Your task to perform on an android device: turn pop-ups off in chrome Image 0: 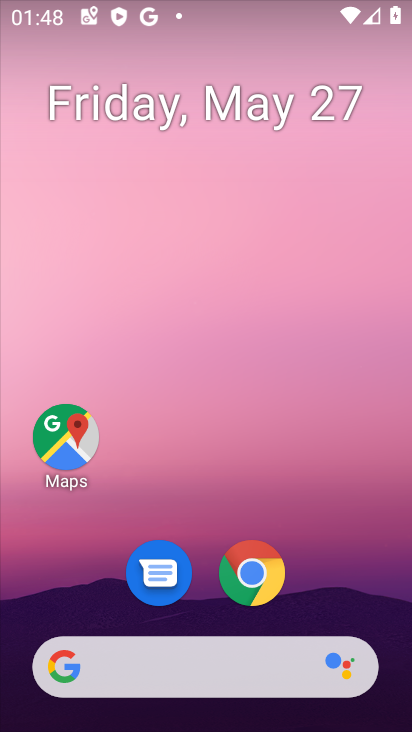
Step 0: click (264, 563)
Your task to perform on an android device: turn pop-ups off in chrome Image 1: 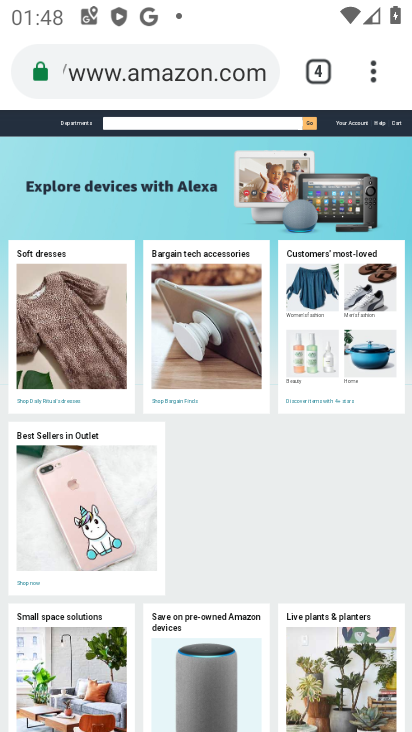
Step 1: click (370, 72)
Your task to perform on an android device: turn pop-ups off in chrome Image 2: 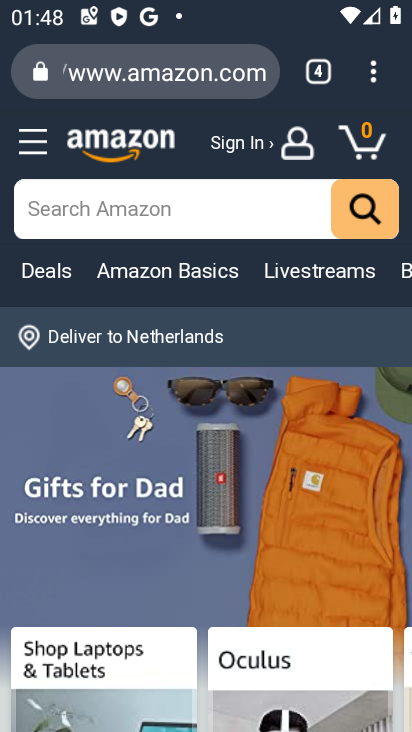
Step 2: click (373, 56)
Your task to perform on an android device: turn pop-ups off in chrome Image 3: 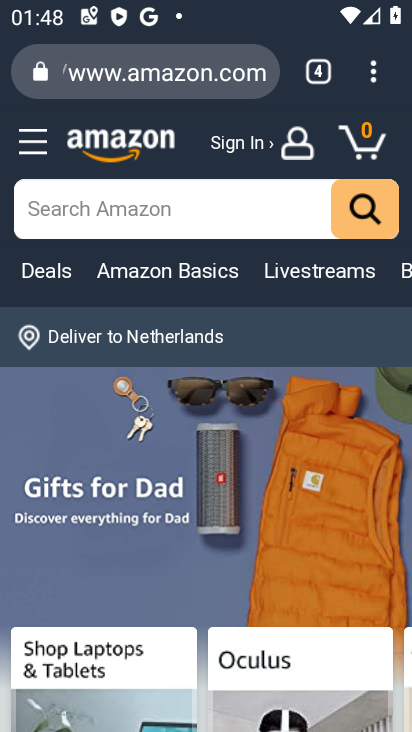
Step 3: drag from (379, 64) to (120, 586)
Your task to perform on an android device: turn pop-ups off in chrome Image 4: 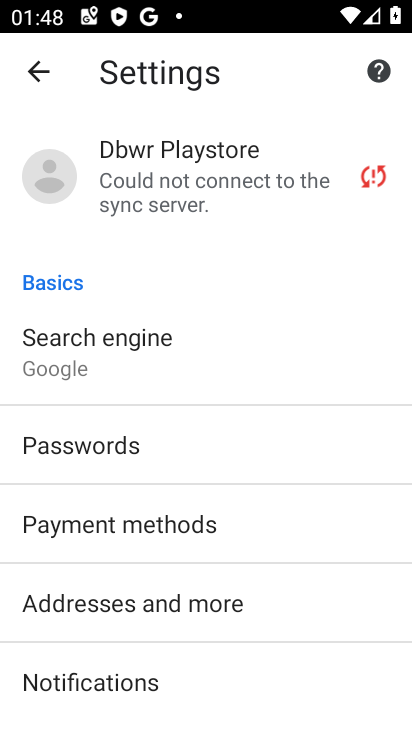
Step 4: drag from (171, 613) to (165, 255)
Your task to perform on an android device: turn pop-ups off in chrome Image 5: 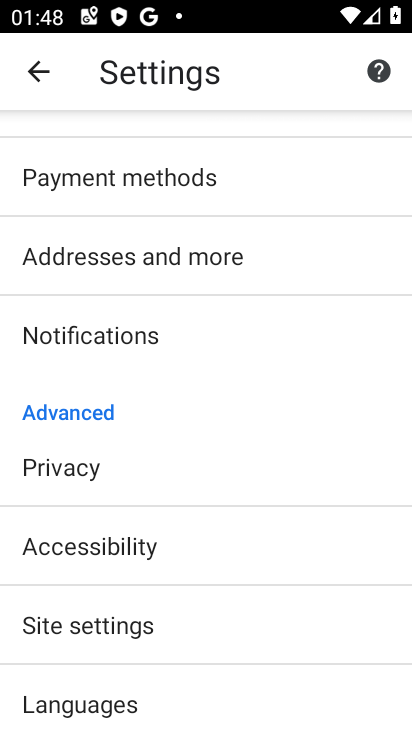
Step 5: click (113, 613)
Your task to perform on an android device: turn pop-ups off in chrome Image 6: 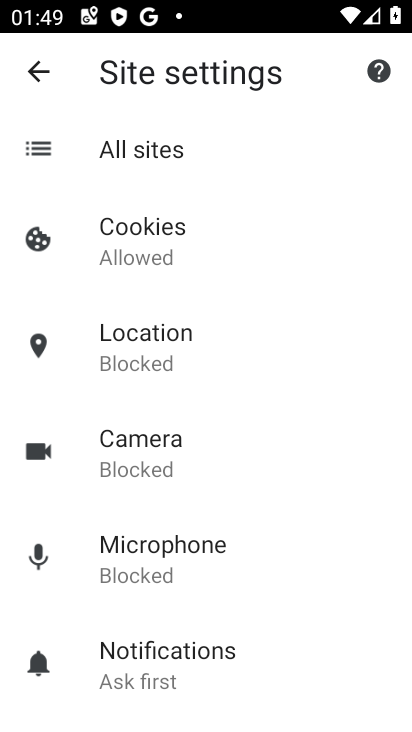
Step 6: drag from (121, 680) to (139, 144)
Your task to perform on an android device: turn pop-ups off in chrome Image 7: 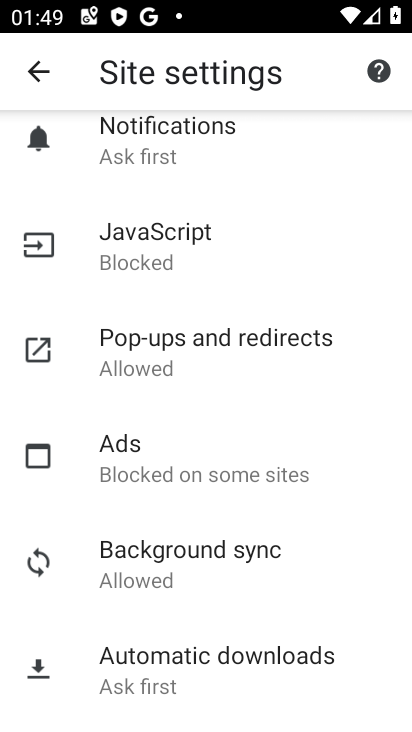
Step 7: click (163, 359)
Your task to perform on an android device: turn pop-ups off in chrome Image 8: 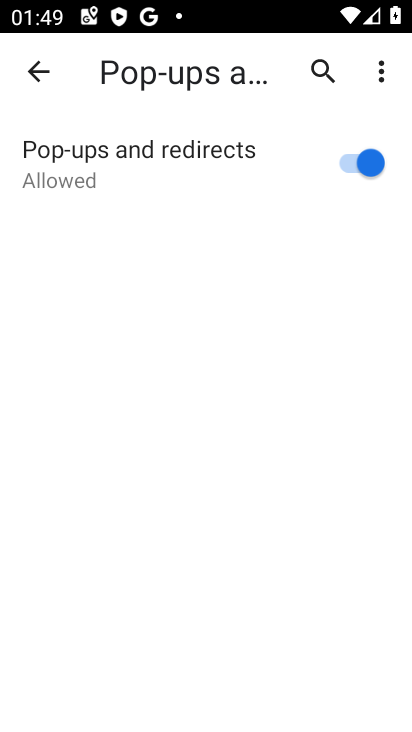
Step 8: click (378, 156)
Your task to perform on an android device: turn pop-ups off in chrome Image 9: 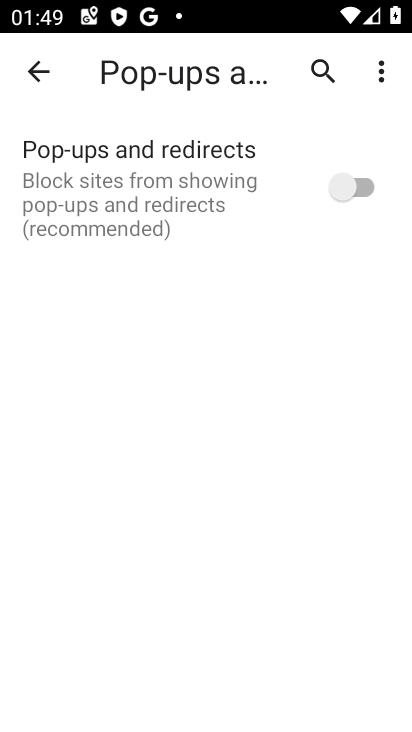
Step 9: task complete